Your task to perform on an android device: Open Youtube and go to "Your channel" Image 0: 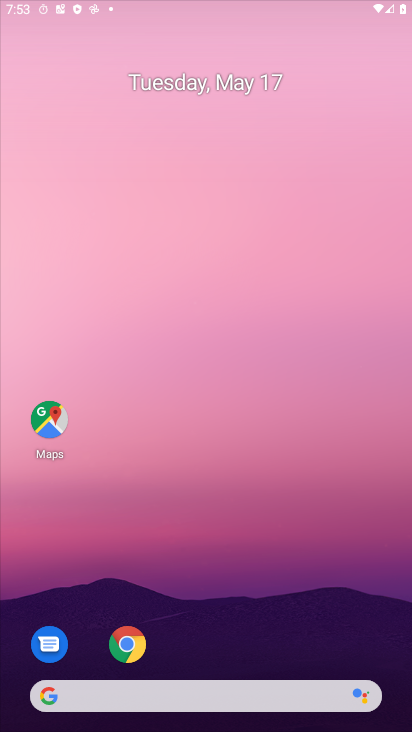
Step 0: drag from (323, 624) to (209, 35)
Your task to perform on an android device: Open Youtube and go to "Your channel" Image 1: 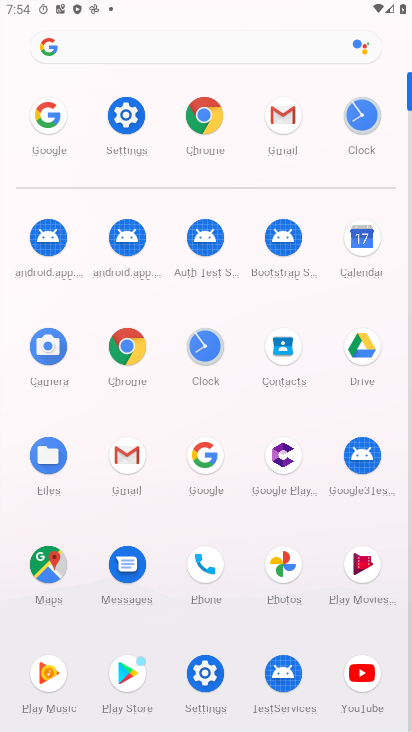
Step 1: click (362, 686)
Your task to perform on an android device: Open Youtube and go to "Your channel" Image 2: 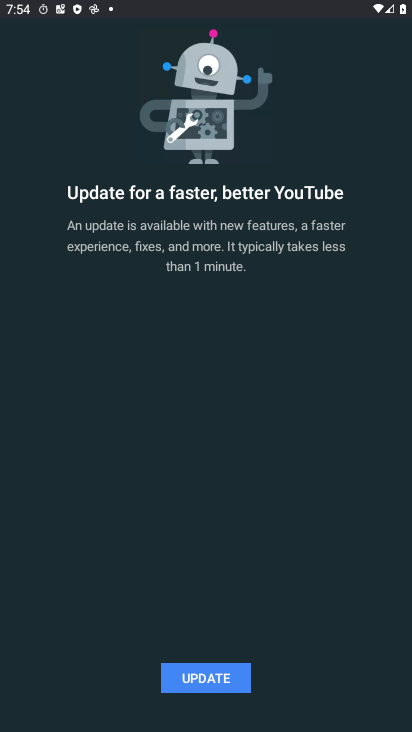
Step 2: click (208, 671)
Your task to perform on an android device: Open Youtube and go to "Your channel" Image 3: 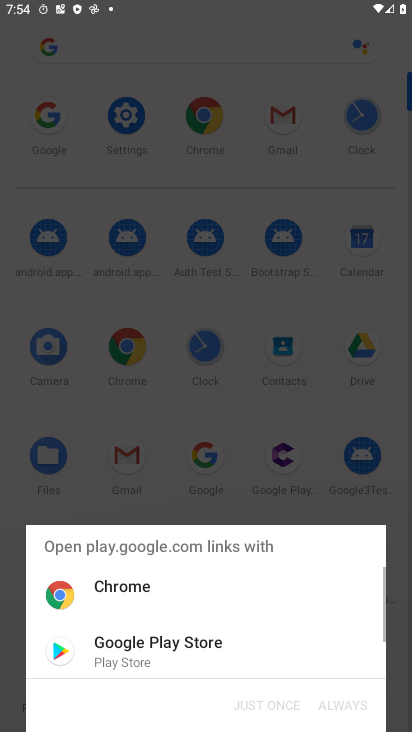
Step 3: click (144, 646)
Your task to perform on an android device: Open Youtube and go to "Your channel" Image 4: 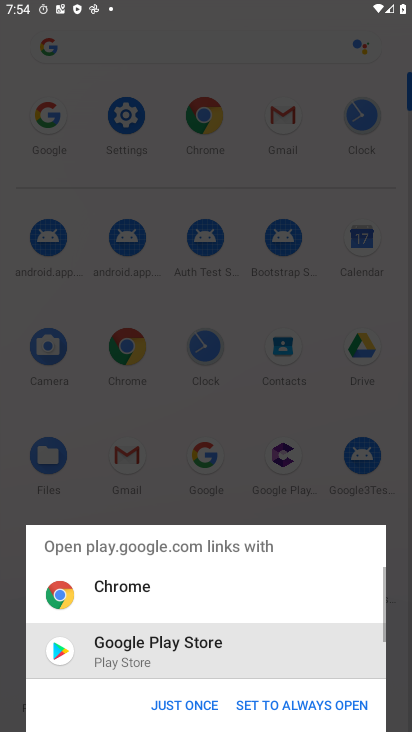
Step 4: click (174, 702)
Your task to perform on an android device: Open Youtube and go to "Your channel" Image 5: 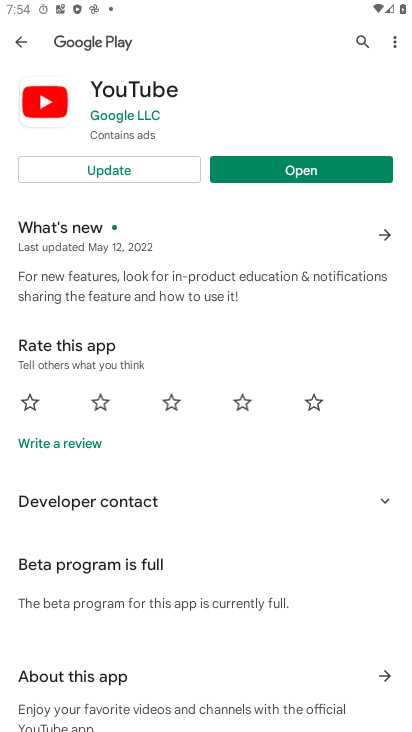
Step 5: click (76, 167)
Your task to perform on an android device: Open Youtube and go to "Your channel" Image 6: 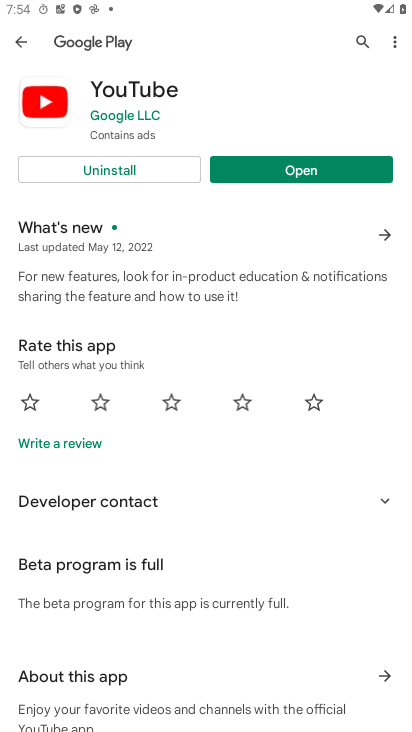
Step 6: click (272, 171)
Your task to perform on an android device: Open Youtube and go to "Your channel" Image 7: 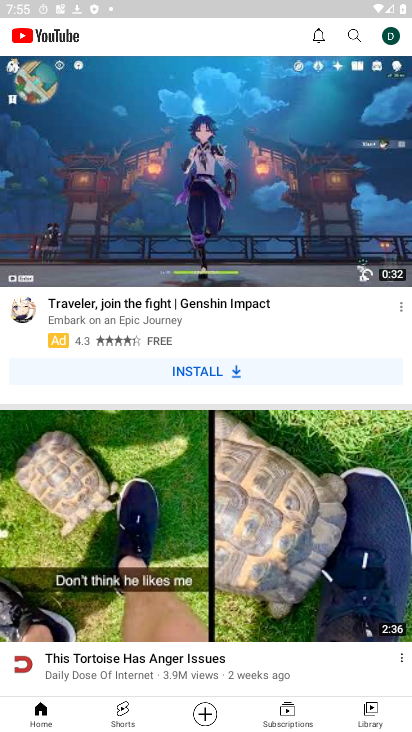
Step 7: click (390, 34)
Your task to perform on an android device: Open Youtube and go to "Your channel" Image 8: 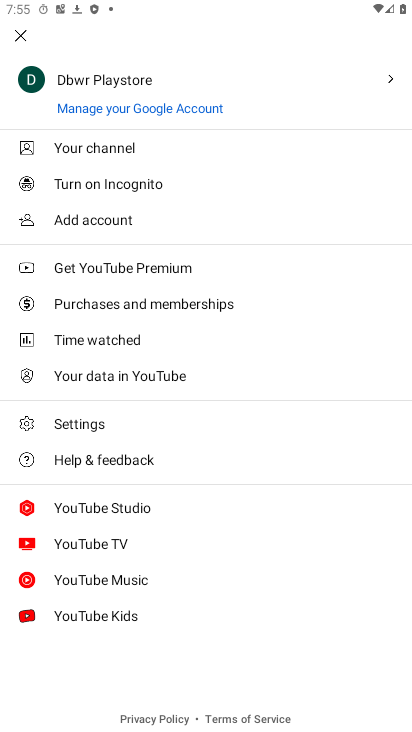
Step 8: click (111, 146)
Your task to perform on an android device: Open Youtube and go to "Your channel" Image 9: 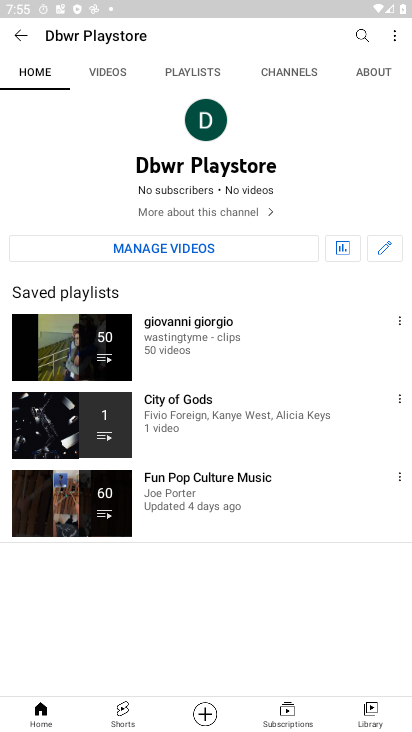
Step 9: task complete